Your task to perform on an android device: Search for dining room chairs on Crate & Barrel Image 0: 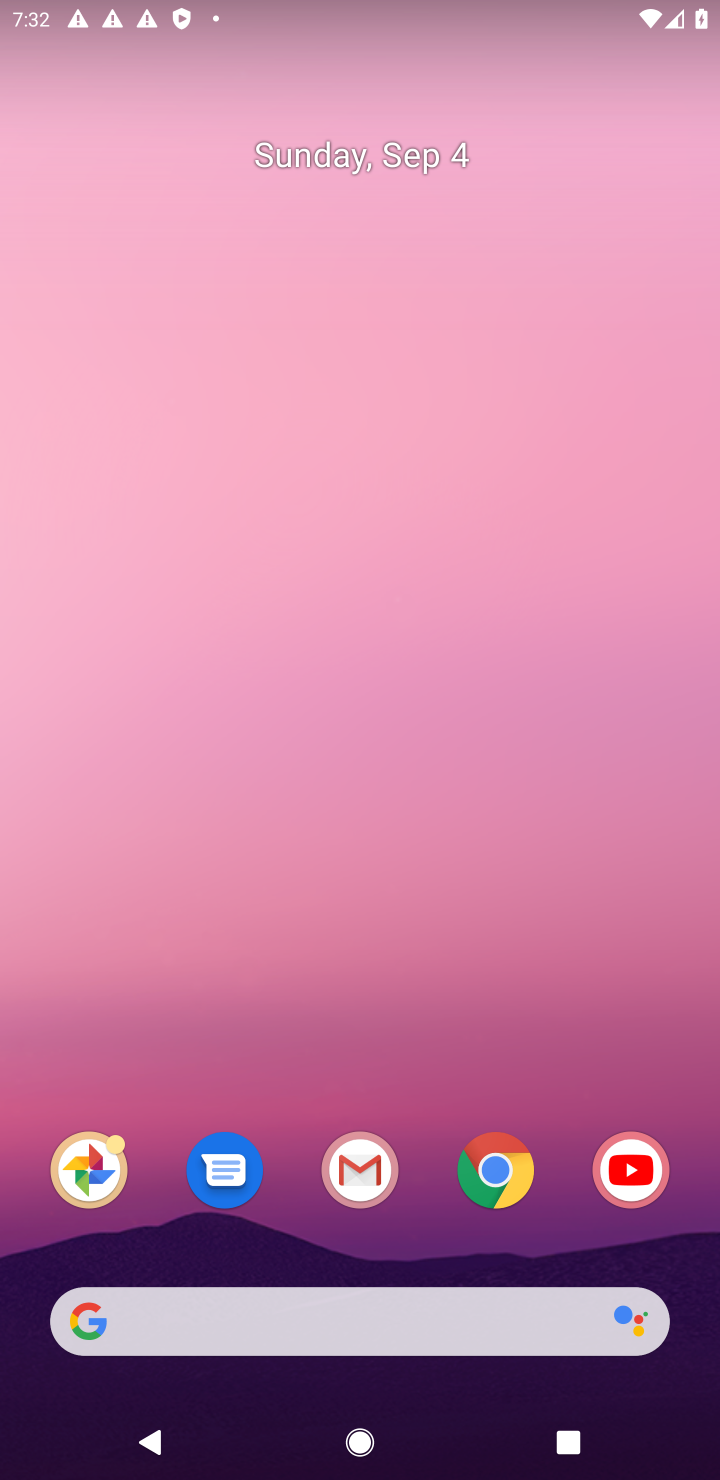
Step 0: click (489, 1179)
Your task to perform on an android device: Search for dining room chairs on Crate & Barrel Image 1: 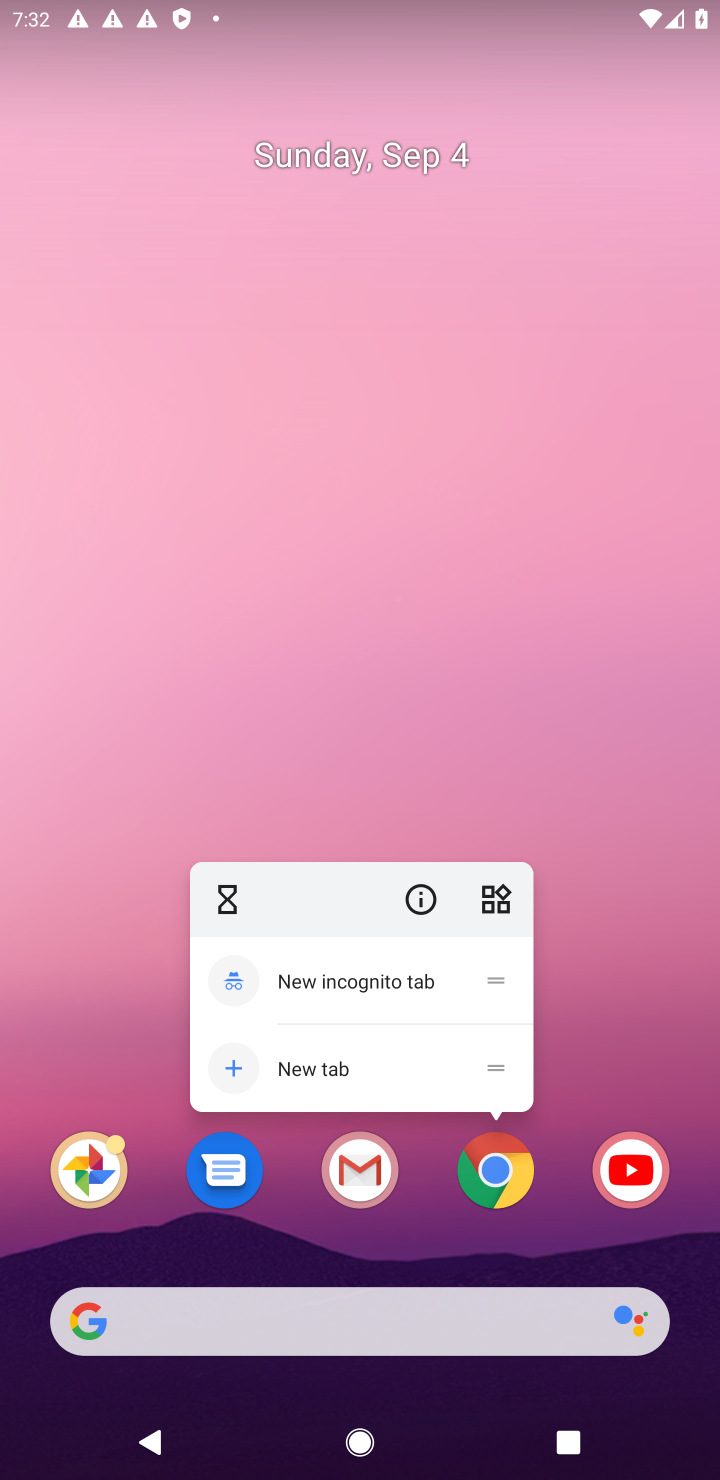
Step 1: click (489, 1179)
Your task to perform on an android device: Search for dining room chairs on Crate & Barrel Image 2: 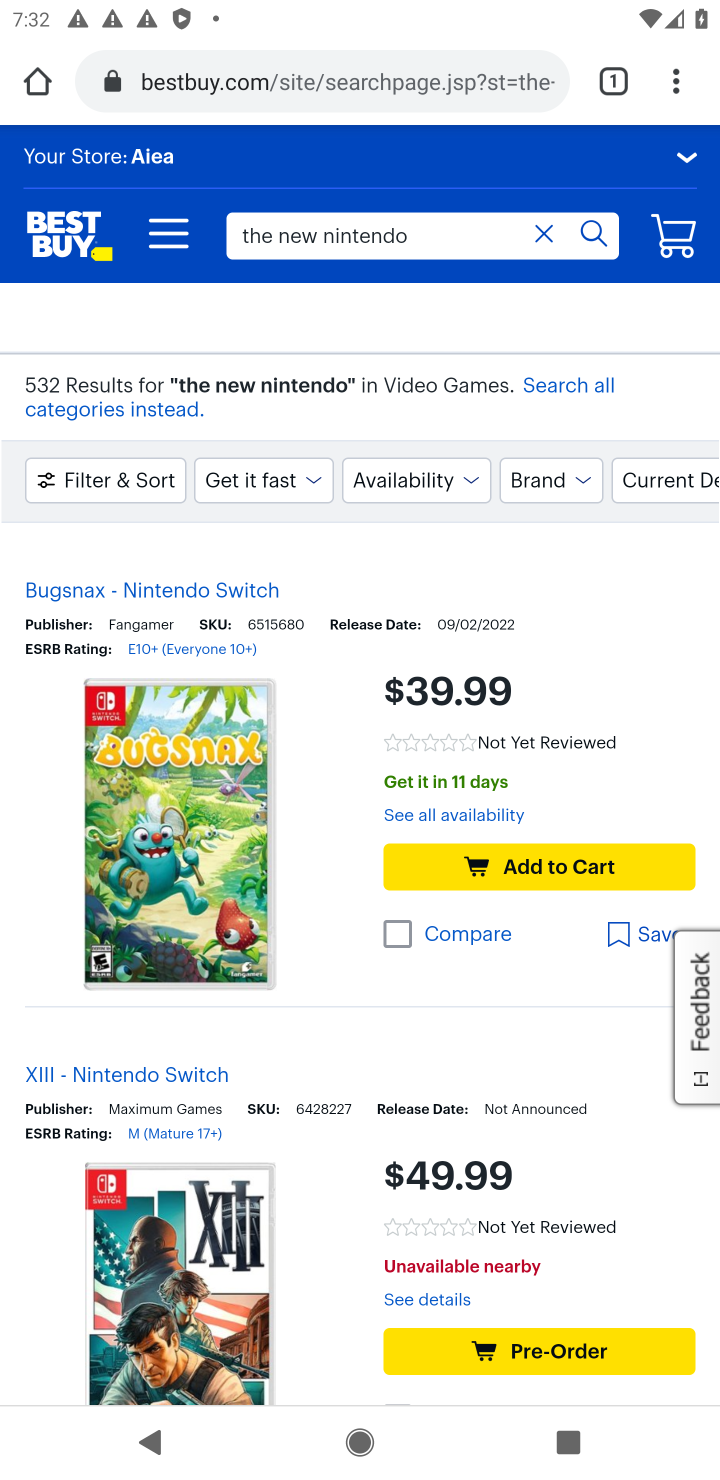
Step 2: click (333, 79)
Your task to perform on an android device: Search for dining room chairs on Crate & Barrel Image 3: 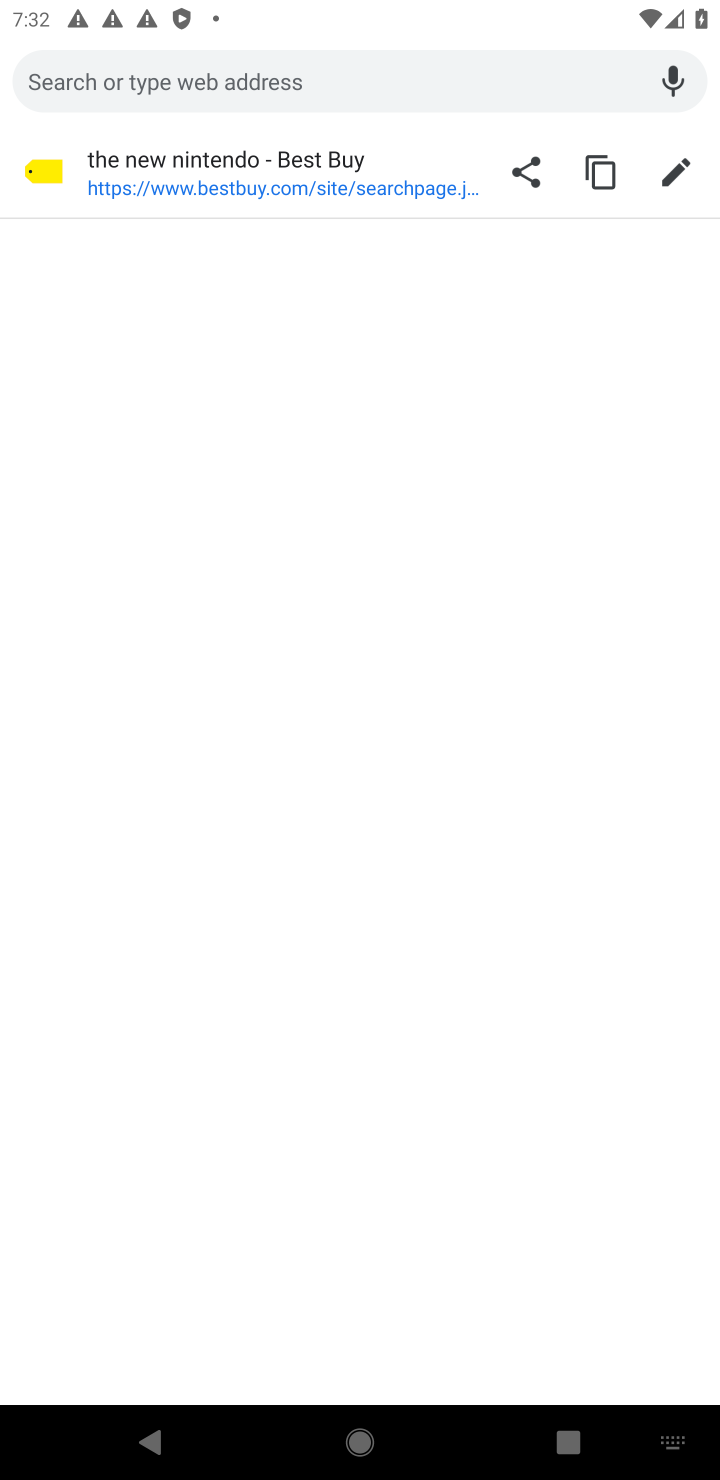
Step 3: type "Crate and barrels"
Your task to perform on an android device: Search for dining room chairs on Crate & Barrel Image 4: 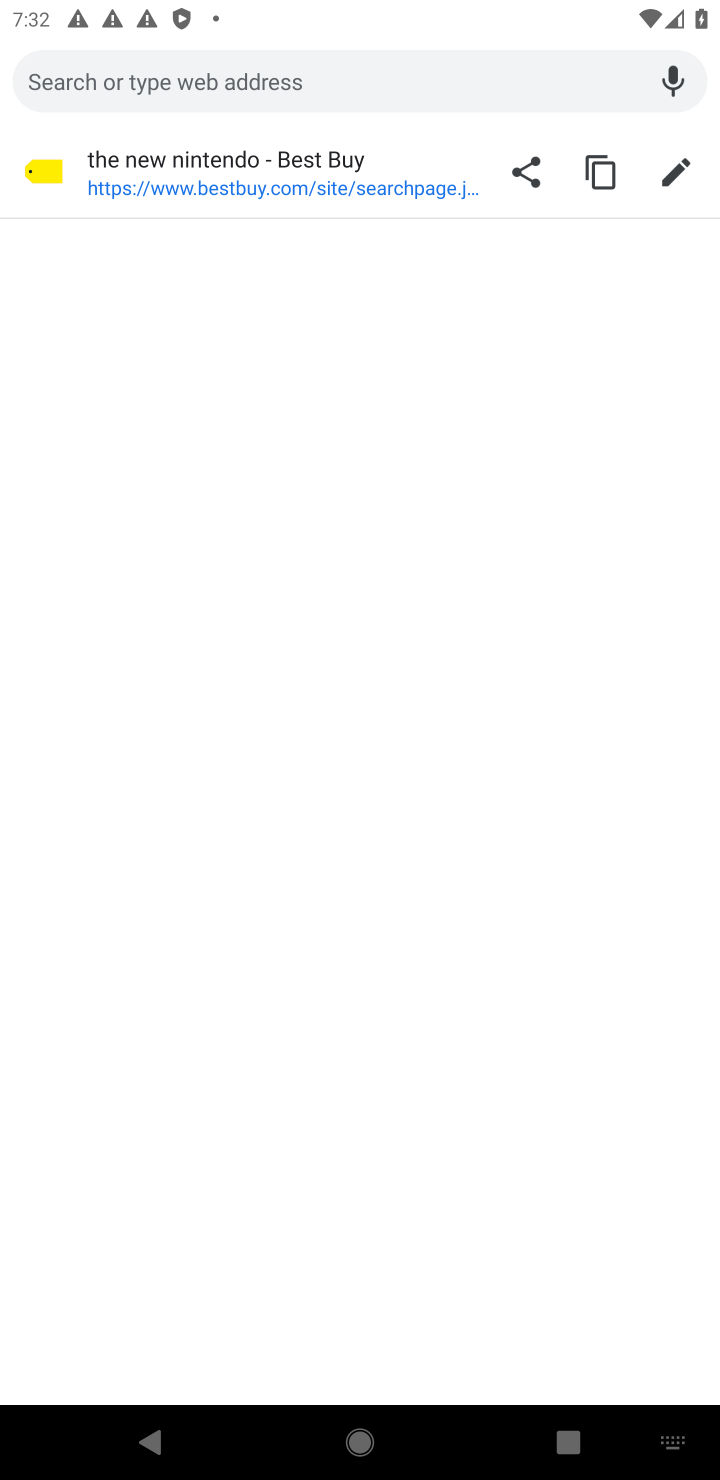
Step 4: click (208, 71)
Your task to perform on an android device: Search for dining room chairs on Crate & Barrel Image 5: 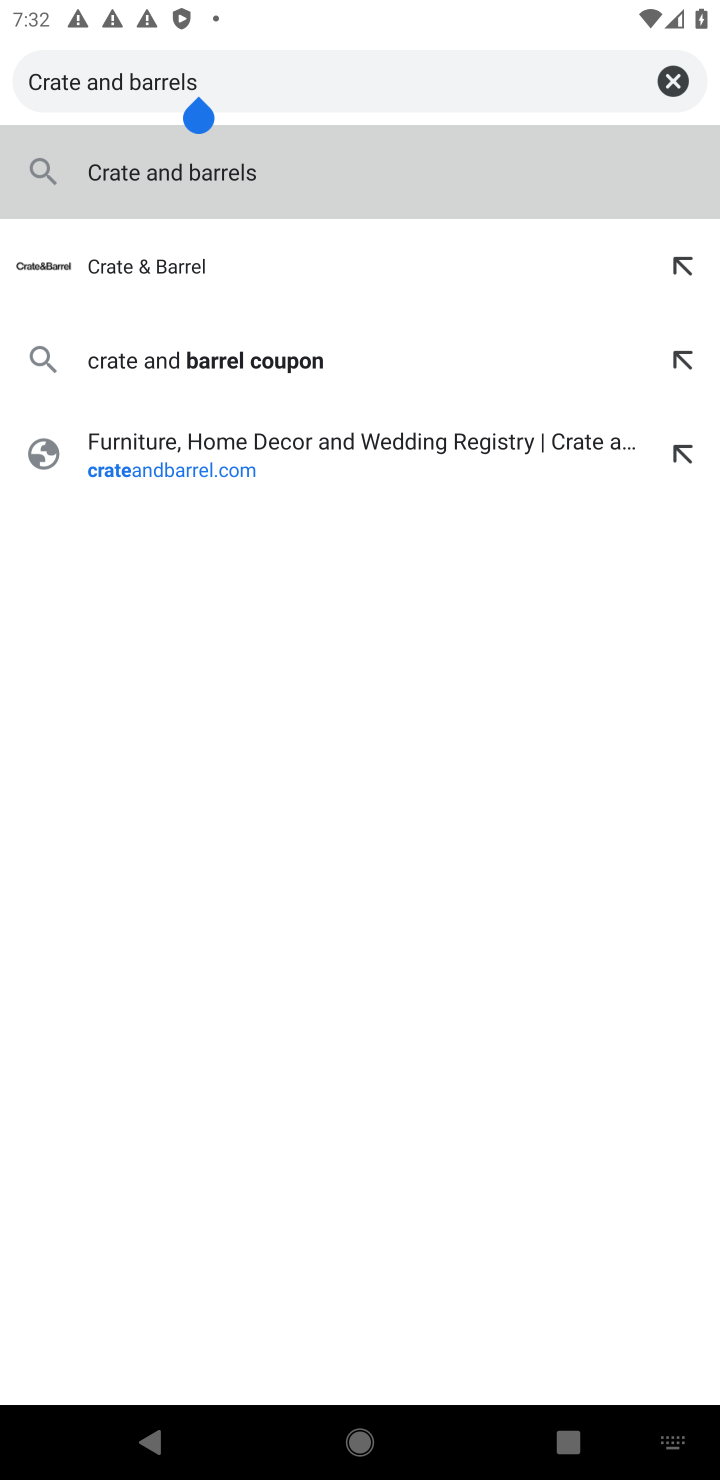
Step 5: click (316, 184)
Your task to perform on an android device: Search for dining room chairs on Crate & Barrel Image 6: 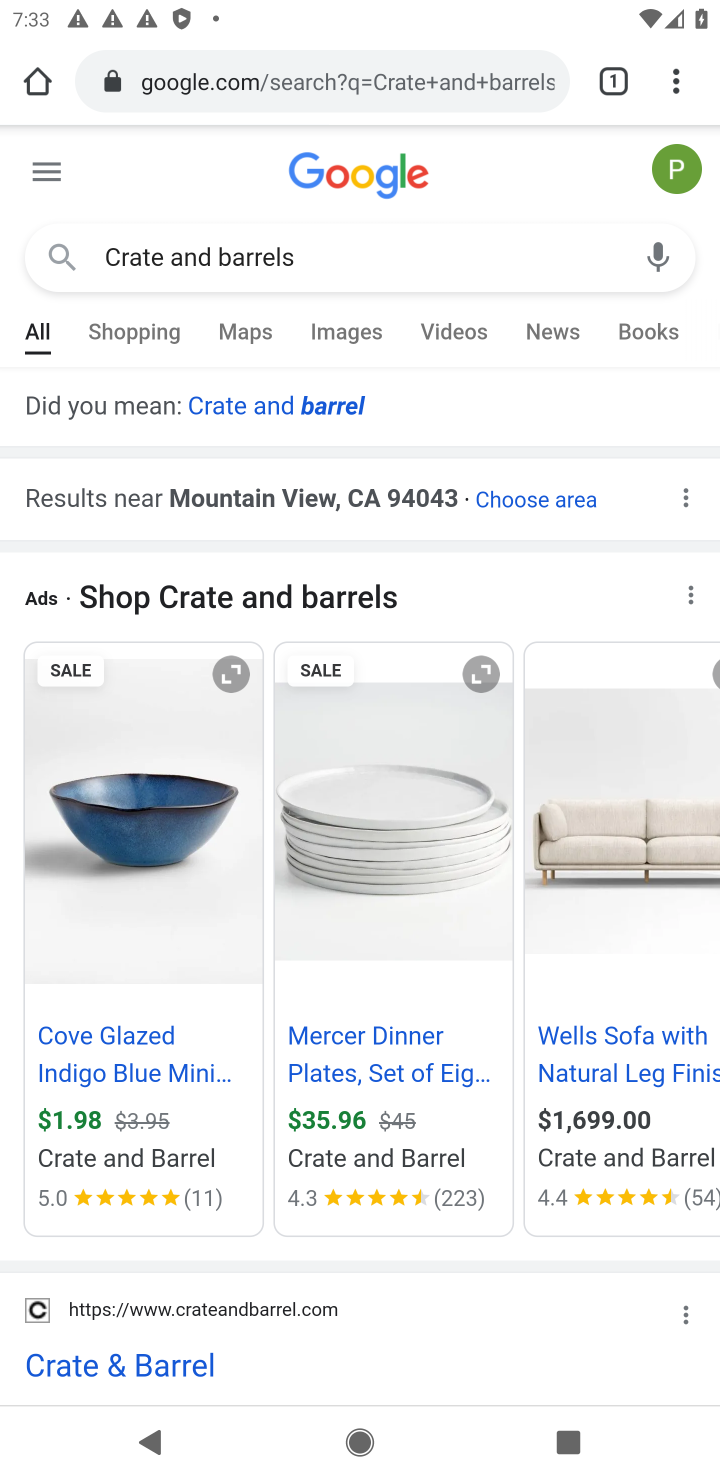
Step 6: click (130, 1363)
Your task to perform on an android device: Search for dining room chairs on Crate & Barrel Image 7: 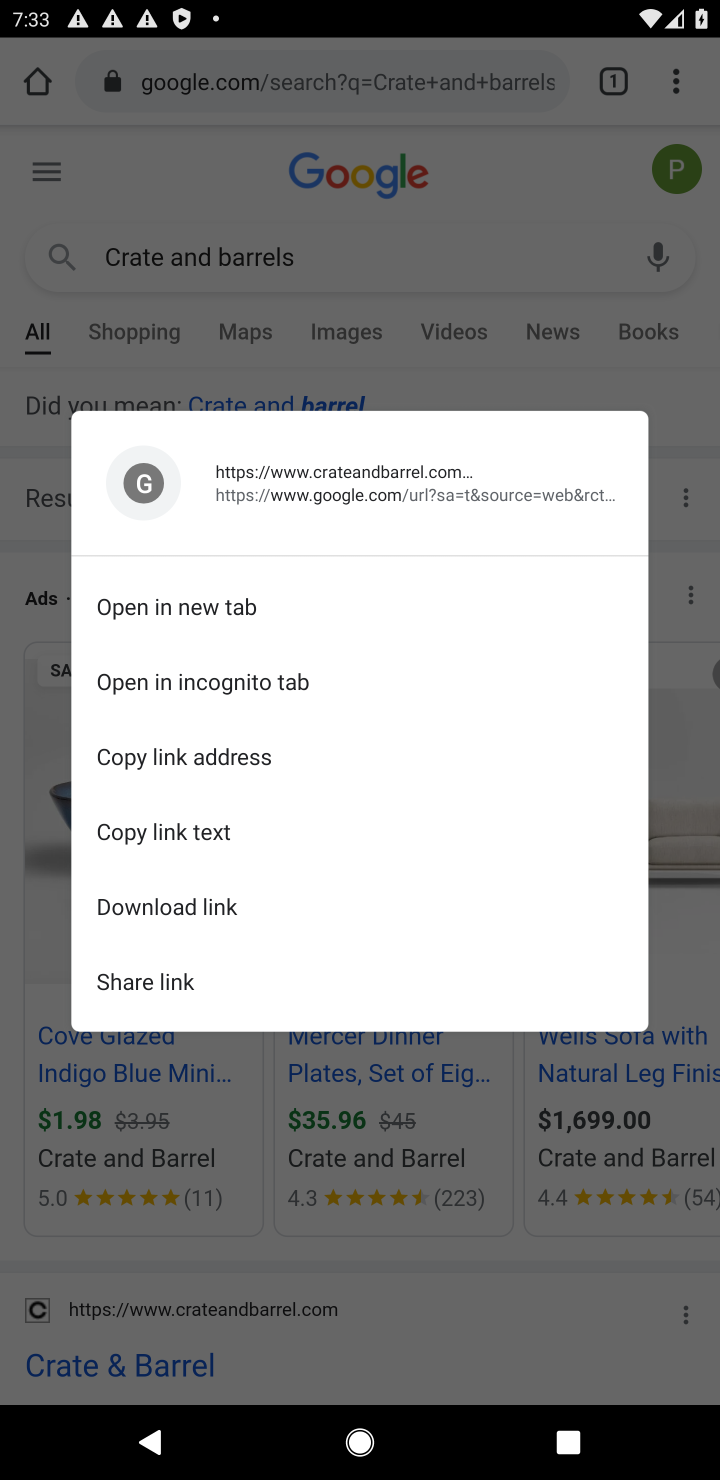
Step 7: click (130, 1363)
Your task to perform on an android device: Search for dining room chairs on Crate & Barrel Image 8: 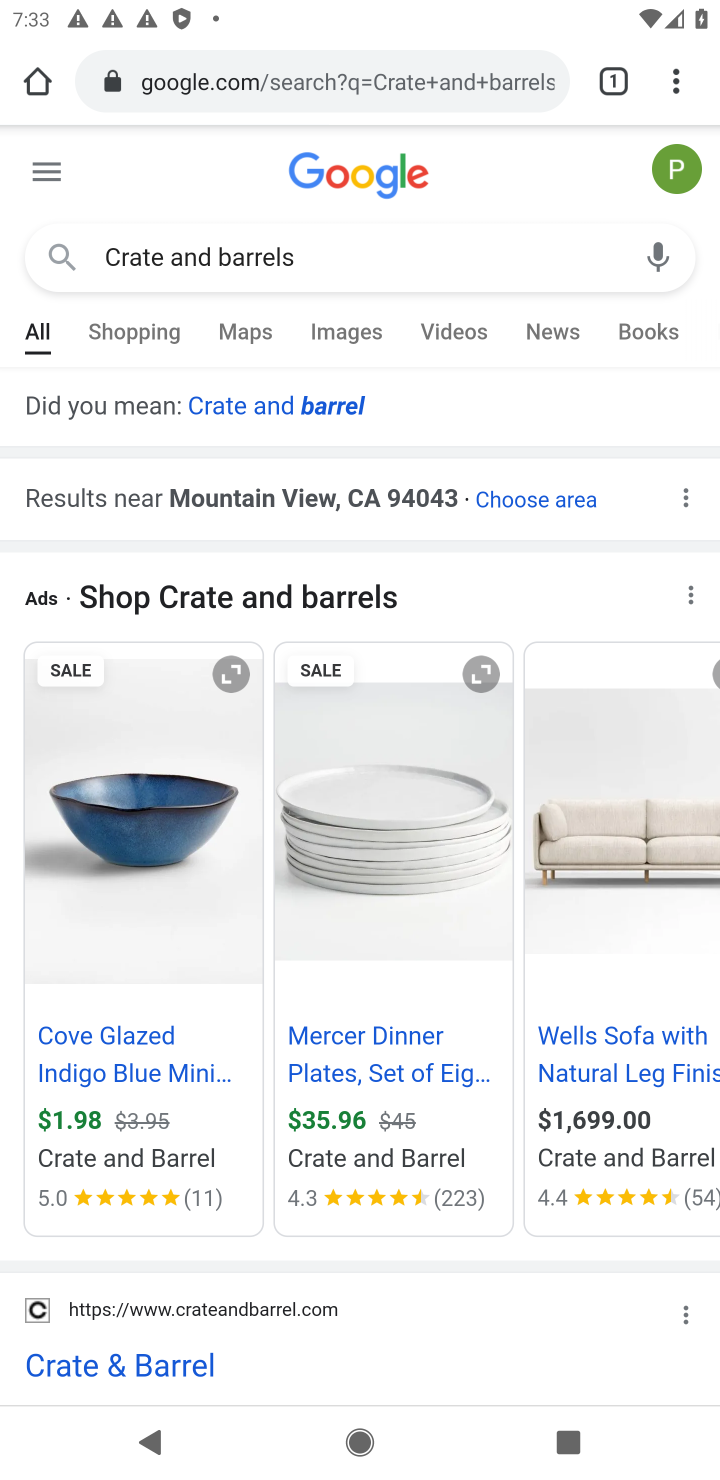
Step 8: drag from (130, 1363) to (224, 672)
Your task to perform on an android device: Search for dining room chairs on Crate & Barrel Image 9: 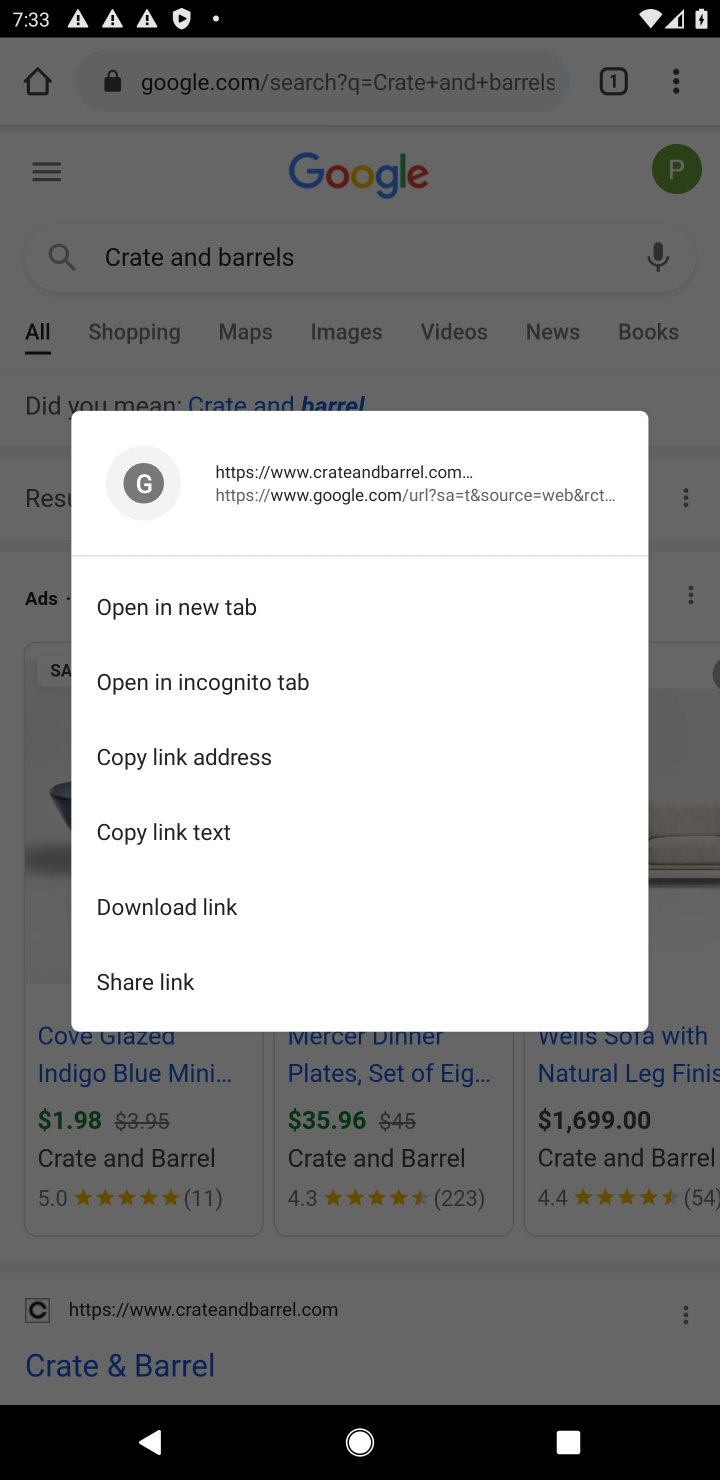
Step 9: click (75, 1357)
Your task to perform on an android device: Search for dining room chairs on Crate & Barrel Image 10: 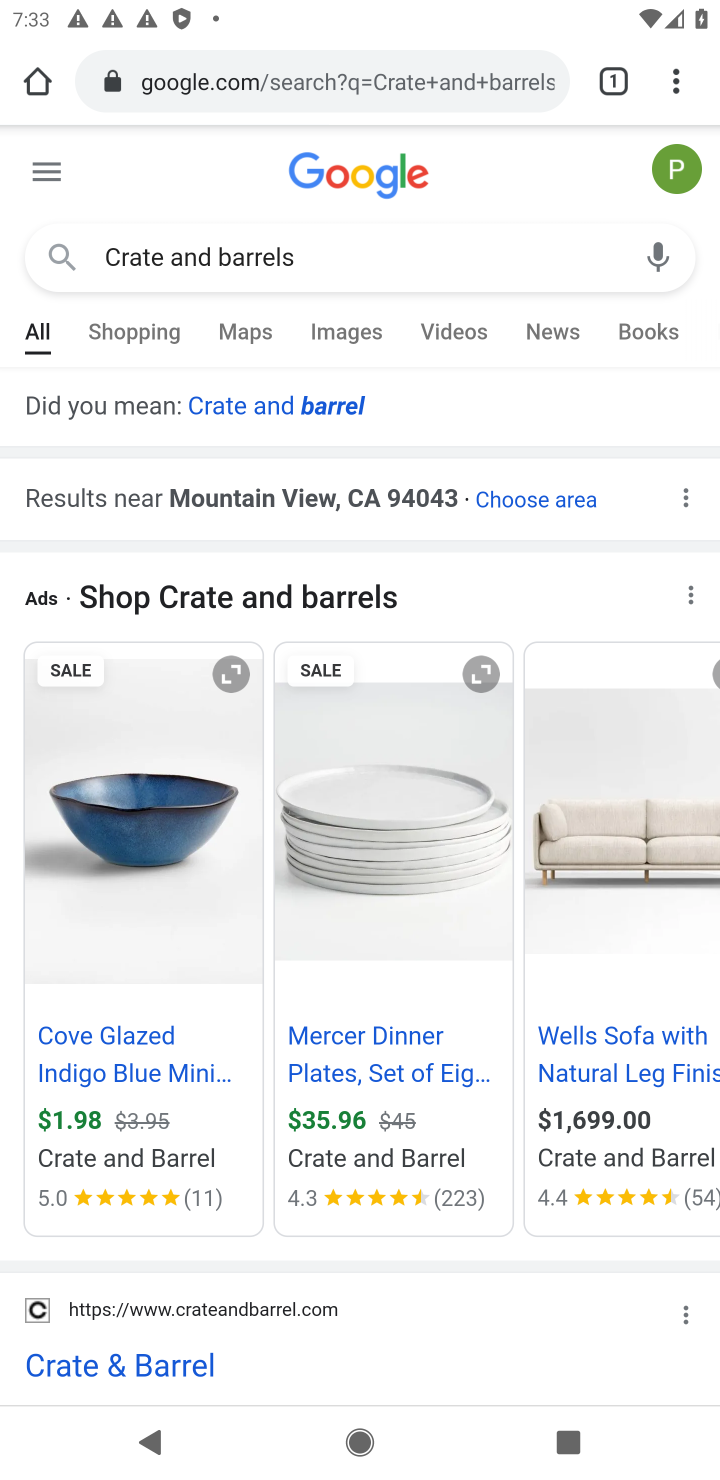
Step 10: drag from (75, 1357) to (162, 1079)
Your task to perform on an android device: Search for dining room chairs on Crate & Barrel Image 11: 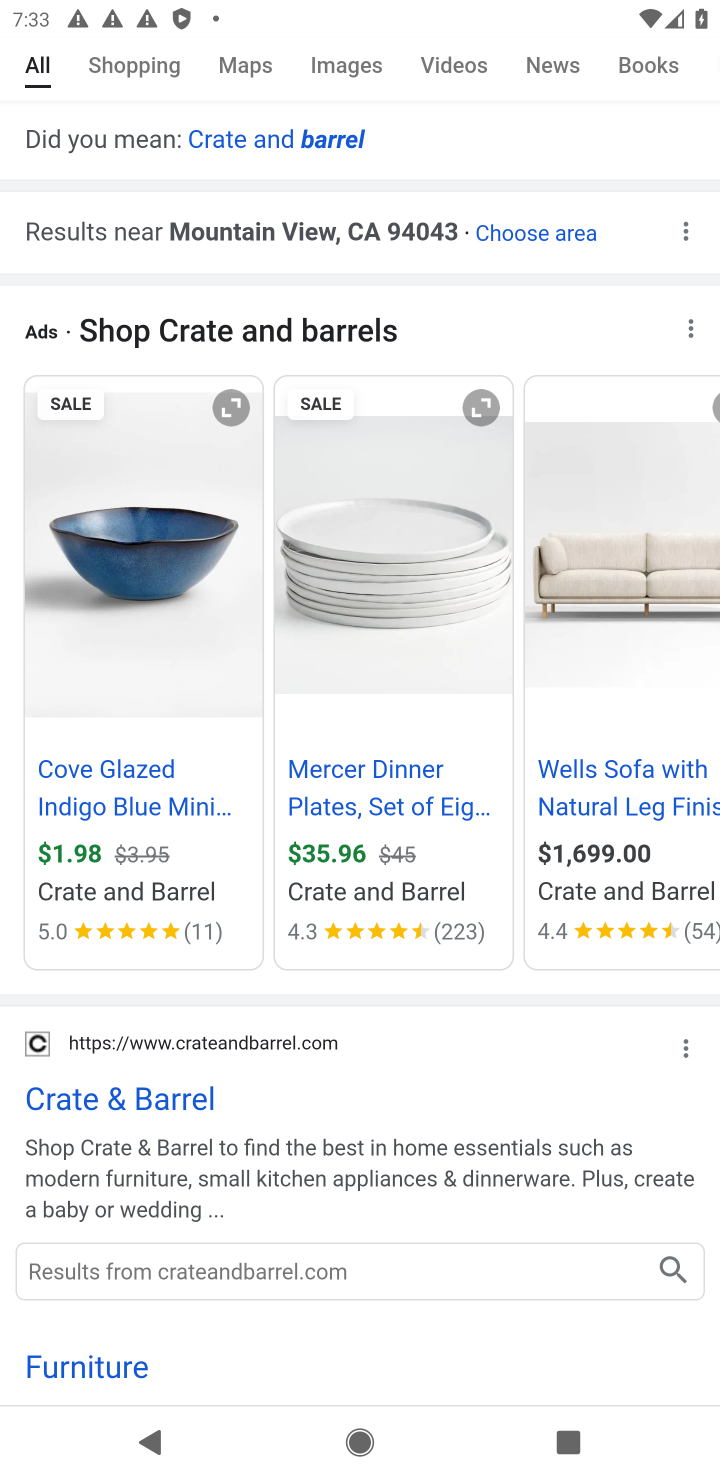
Step 11: click (182, 1124)
Your task to perform on an android device: Search for dining room chairs on Crate & Barrel Image 12: 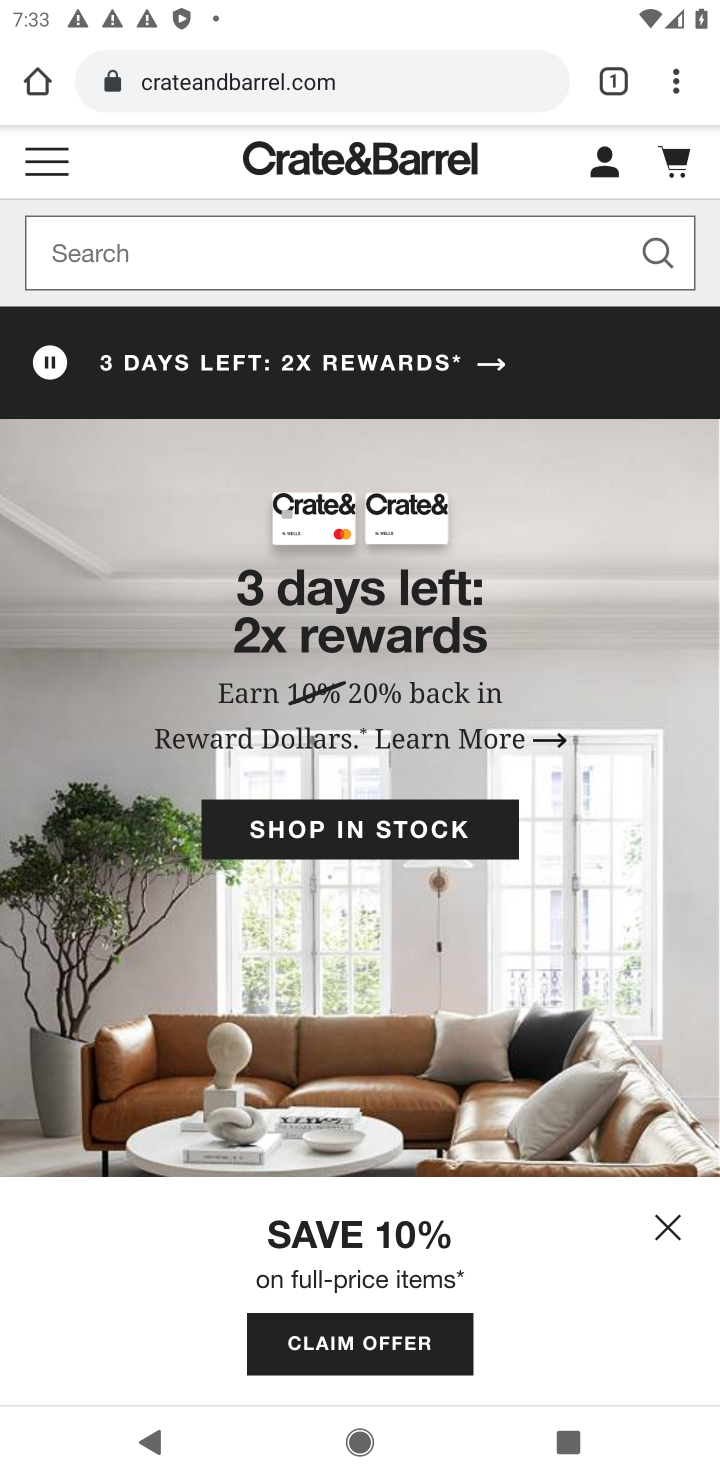
Step 12: click (331, 233)
Your task to perform on an android device: Search for dining room chairs on Crate & Barrel Image 13: 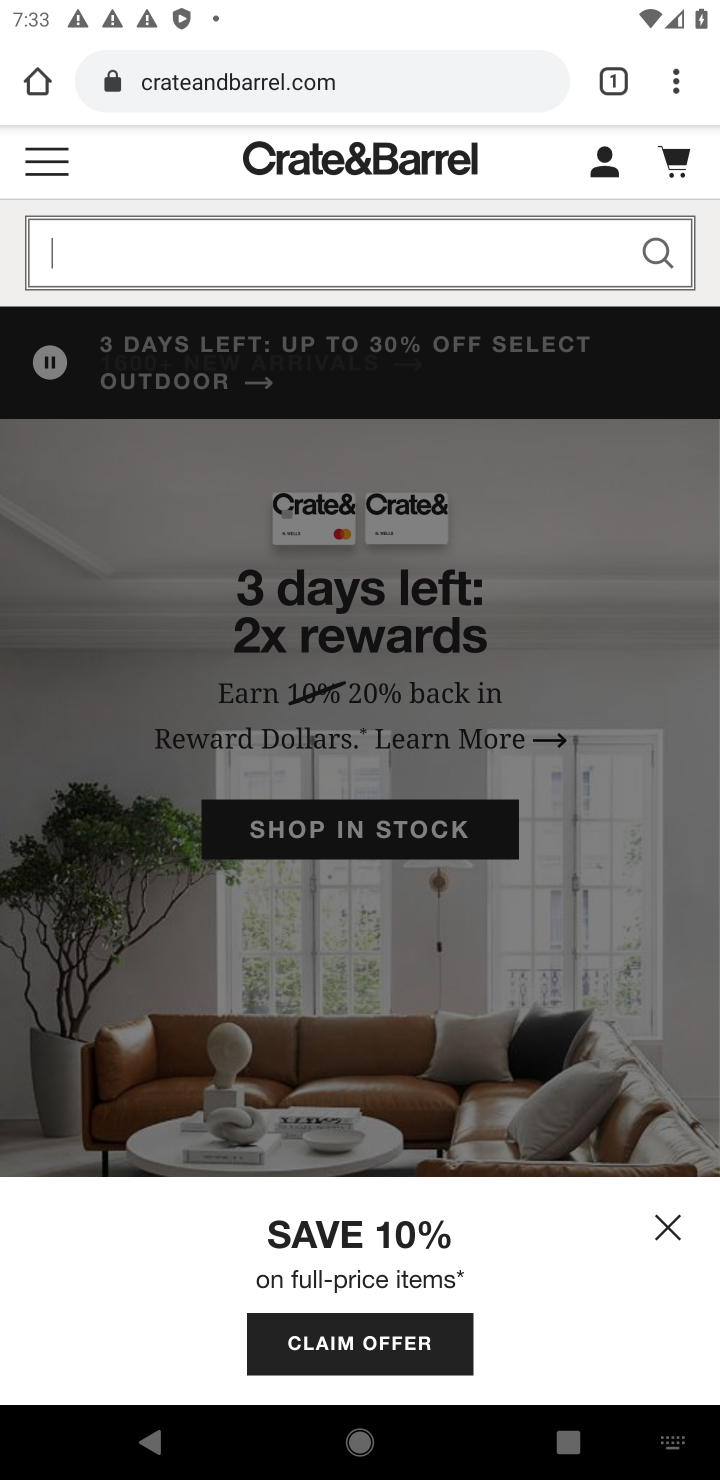
Step 13: type "dining room chairs"
Your task to perform on an android device: Search for dining room chairs on Crate & Barrel Image 14: 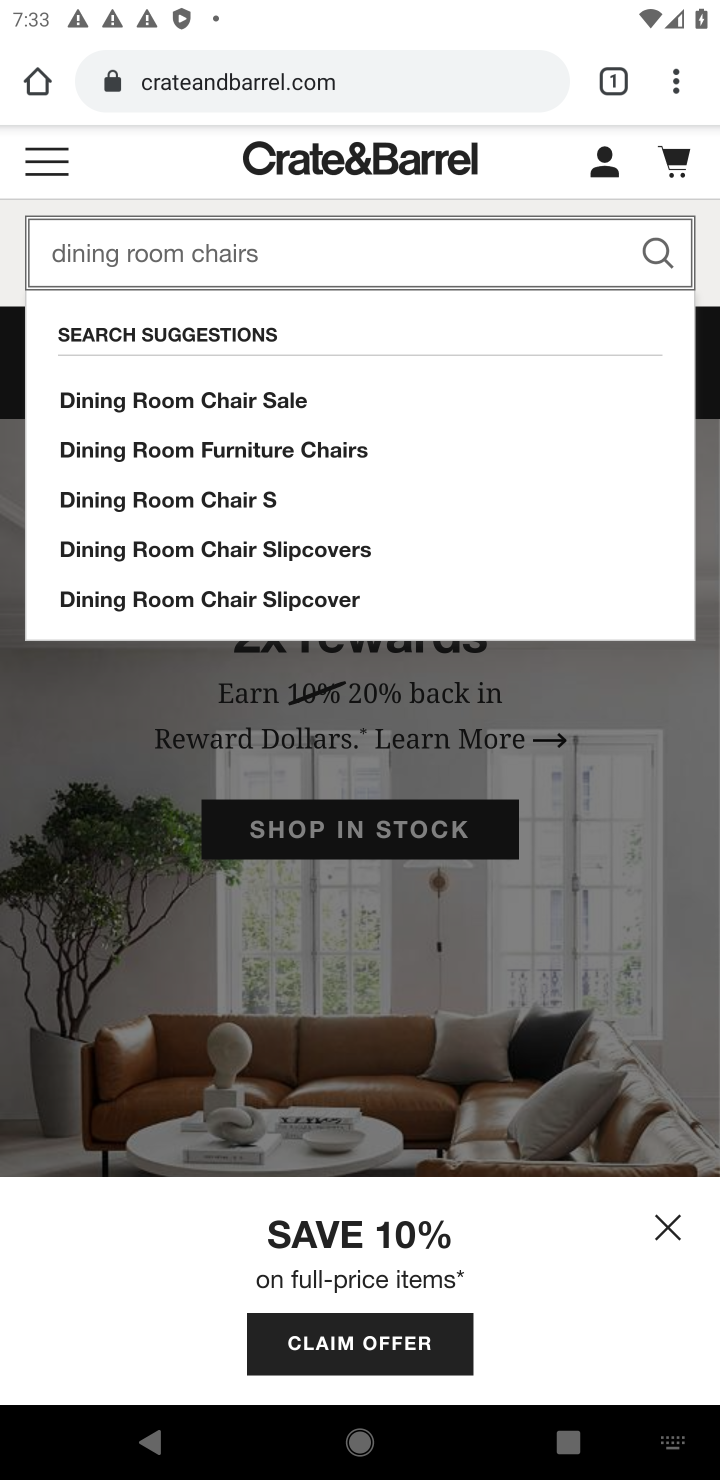
Step 14: click (228, 394)
Your task to perform on an android device: Search for dining room chairs on Crate & Barrel Image 15: 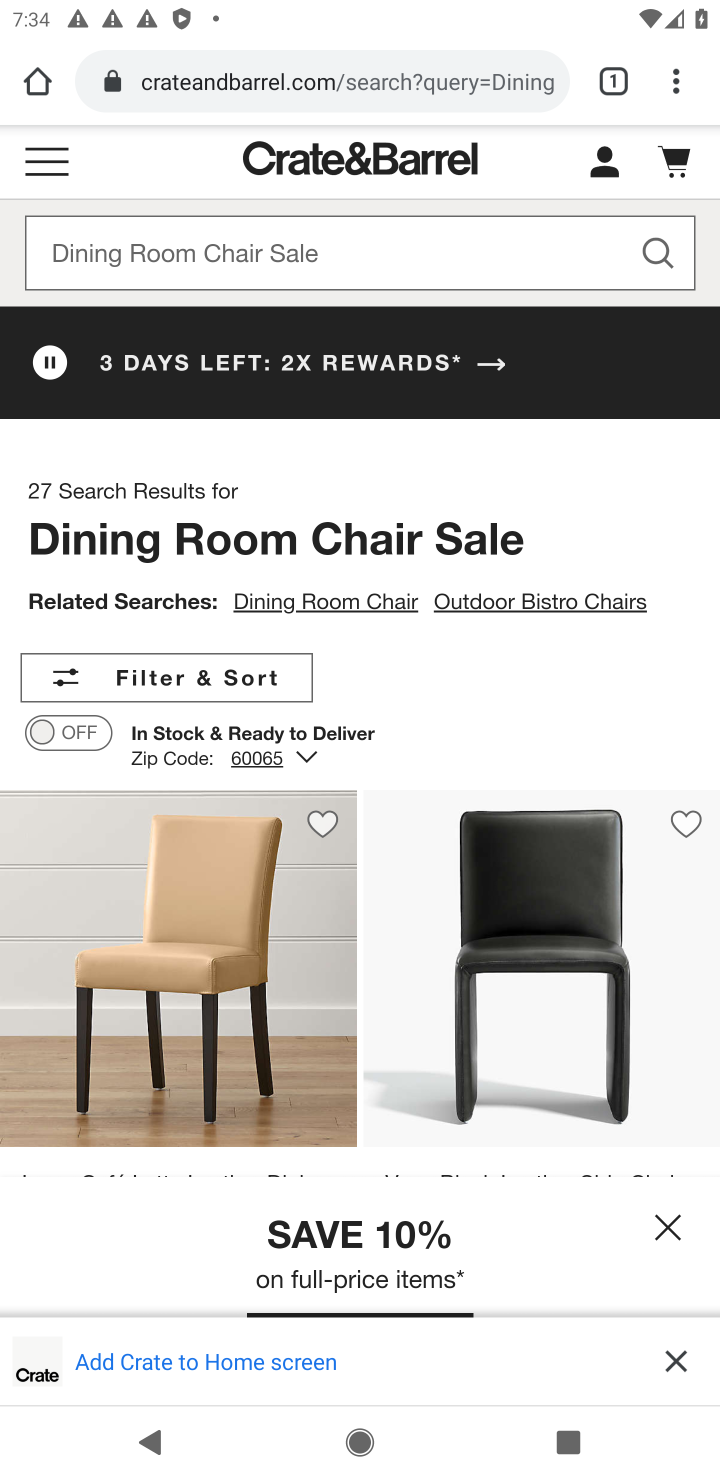
Step 15: task complete